Your task to perform on an android device: open app "Mercado Libre" (install if not already installed) Image 0: 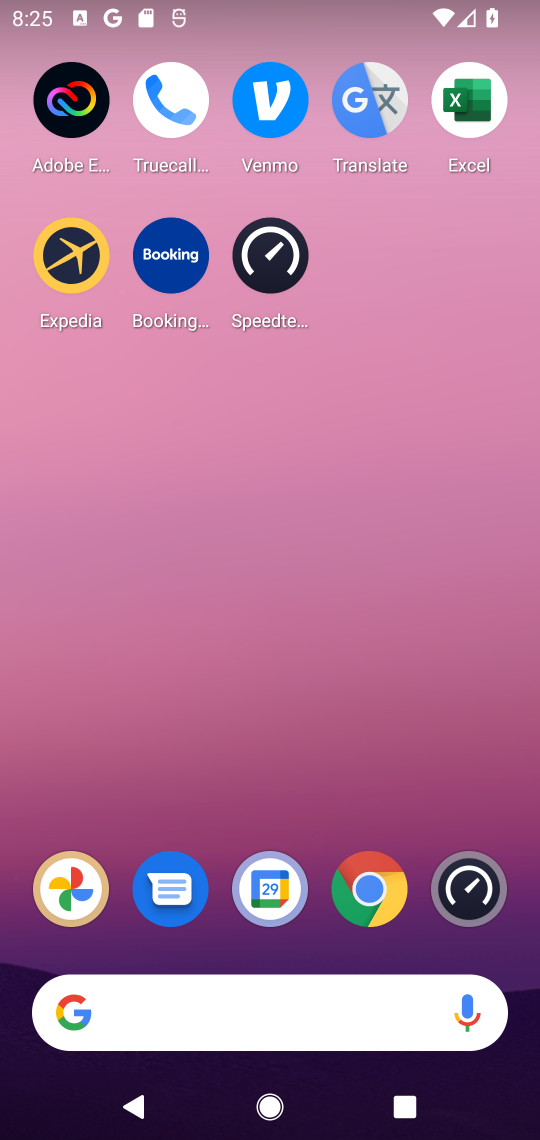
Step 0: press home button
Your task to perform on an android device: open app "Mercado Libre" (install if not already installed) Image 1: 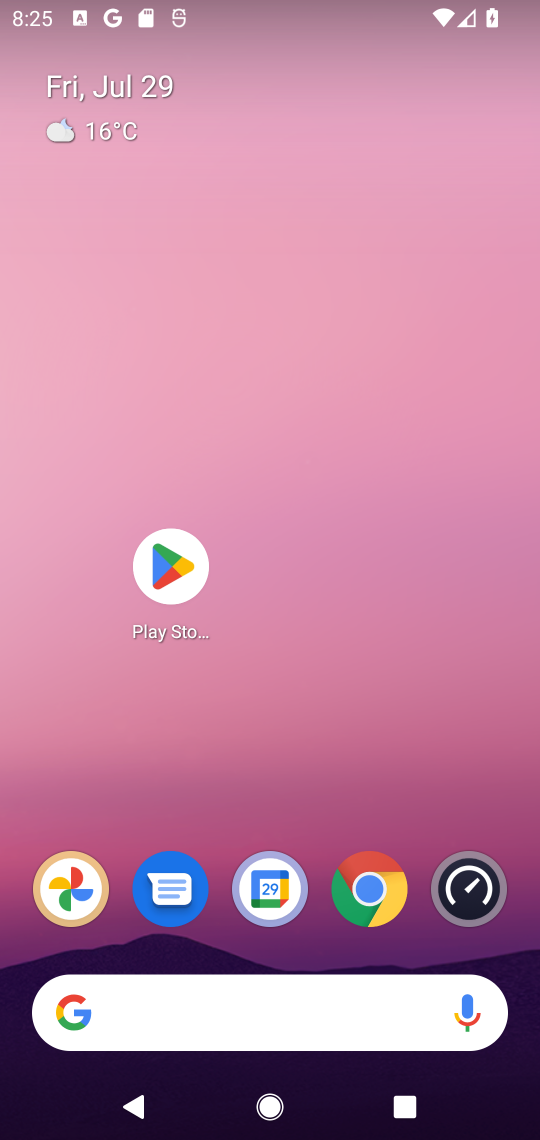
Step 1: click (166, 573)
Your task to perform on an android device: open app "Mercado Libre" (install if not already installed) Image 2: 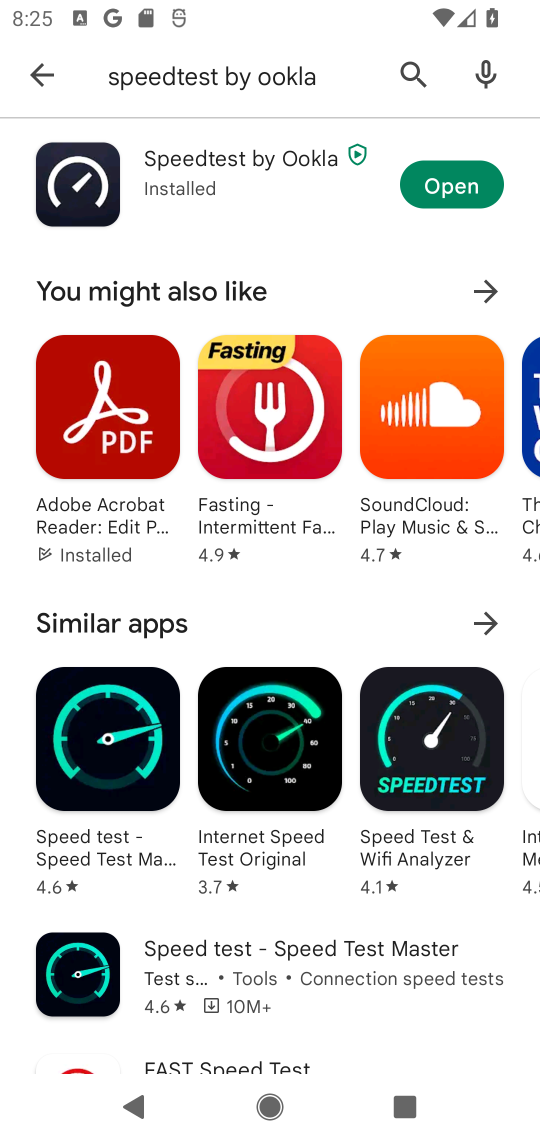
Step 2: click (405, 71)
Your task to perform on an android device: open app "Mercado Libre" (install if not already installed) Image 3: 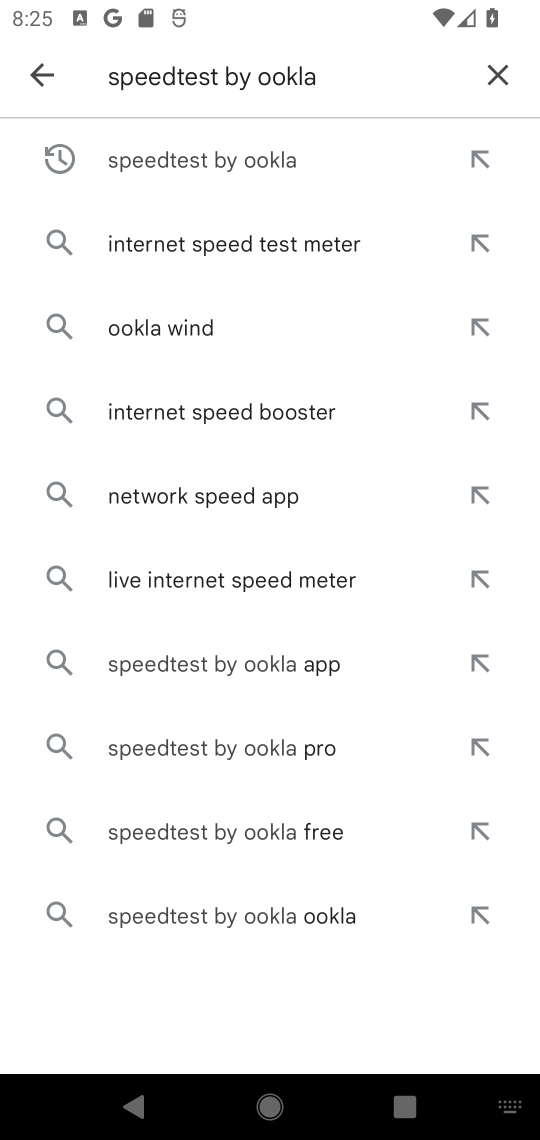
Step 3: click (506, 71)
Your task to perform on an android device: open app "Mercado Libre" (install if not already installed) Image 4: 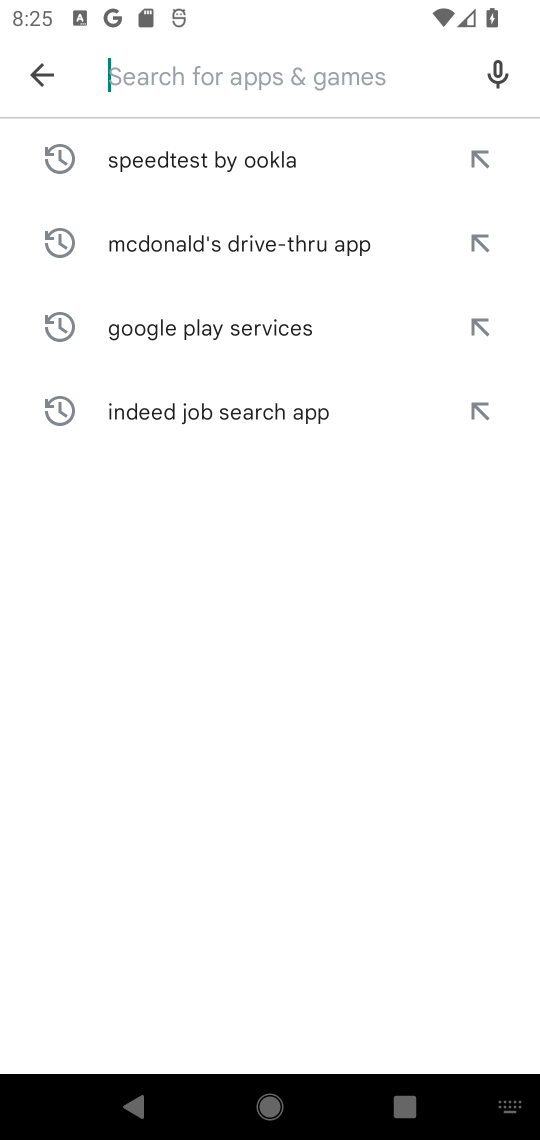
Step 4: type "Mercado Libre"
Your task to perform on an android device: open app "Mercado Libre" (install if not already installed) Image 5: 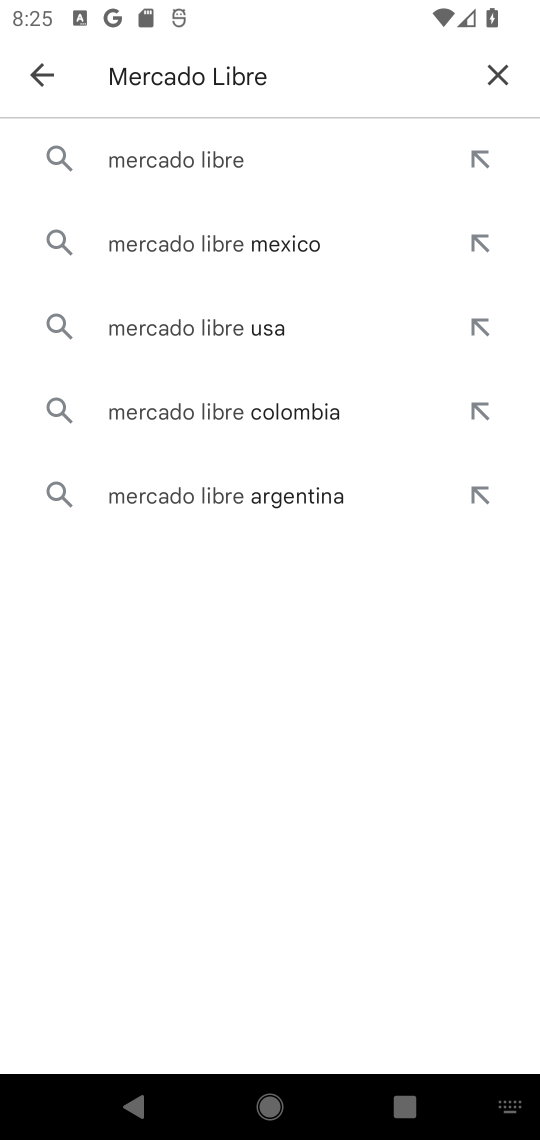
Step 5: click (200, 160)
Your task to perform on an android device: open app "Mercado Libre" (install if not already installed) Image 6: 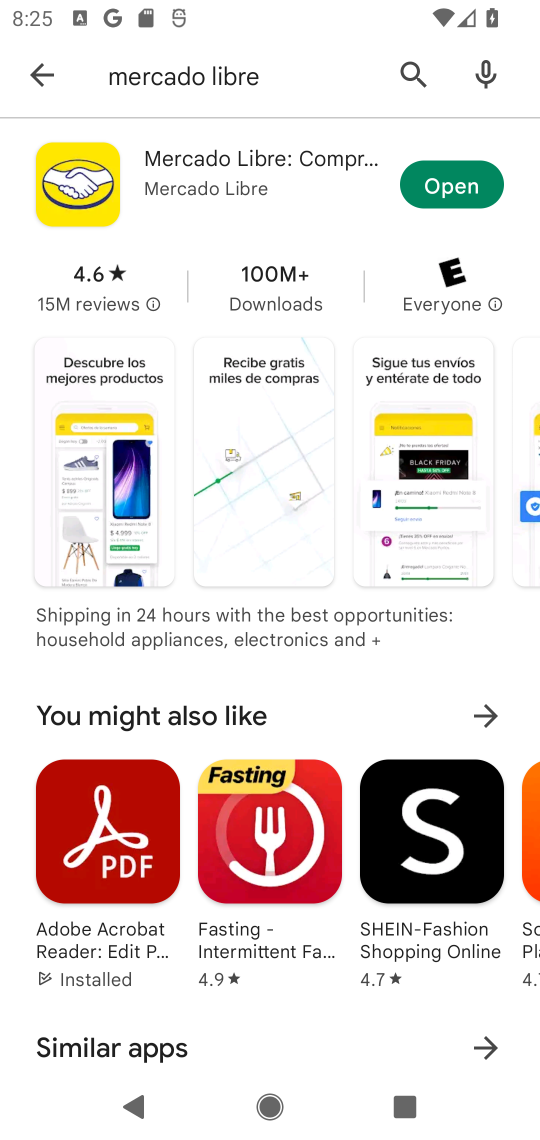
Step 6: click (440, 188)
Your task to perform on an android device: open app "Mercado Libre" (install if not already installed) Image 7: 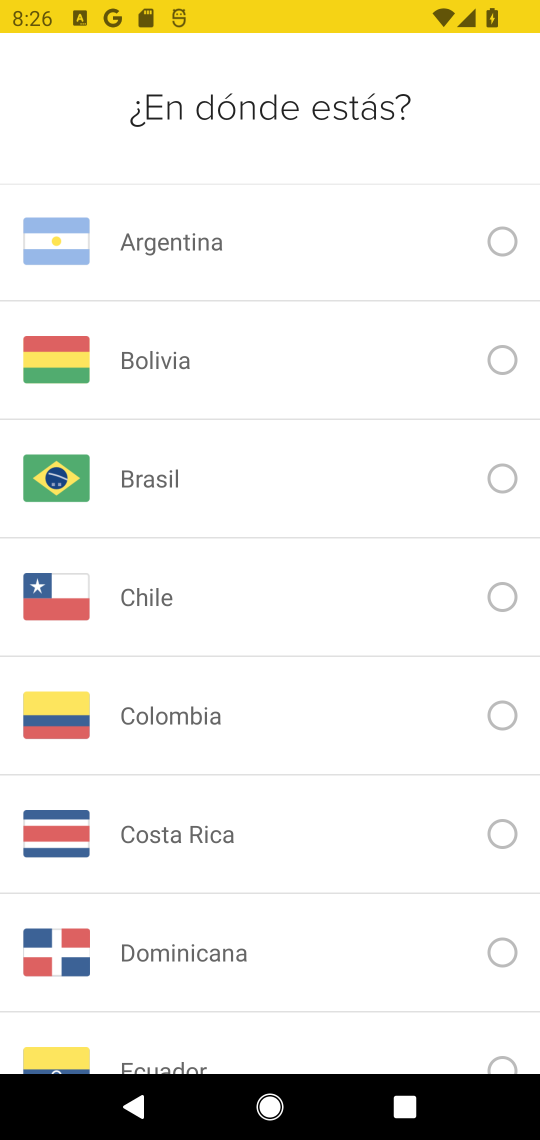
Step 7: task complete